Your task to perform on an android device: manage bookmarks in the chrome app Image 0: 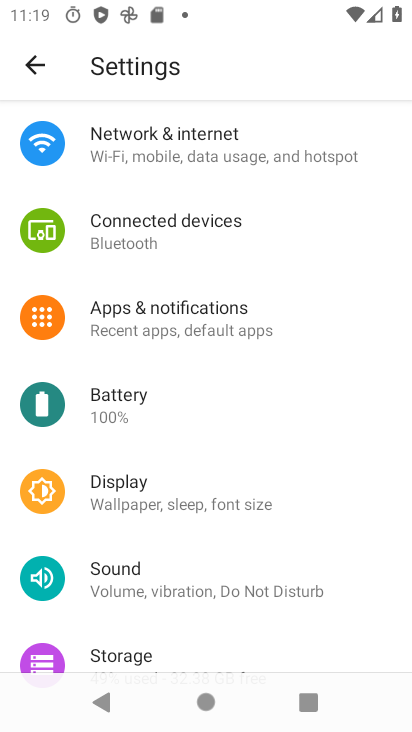
Step 0: drag from (296, 299) to (310, 193)
Your task to perform on an android device: manage bookmarks in the chrome app Image 1: 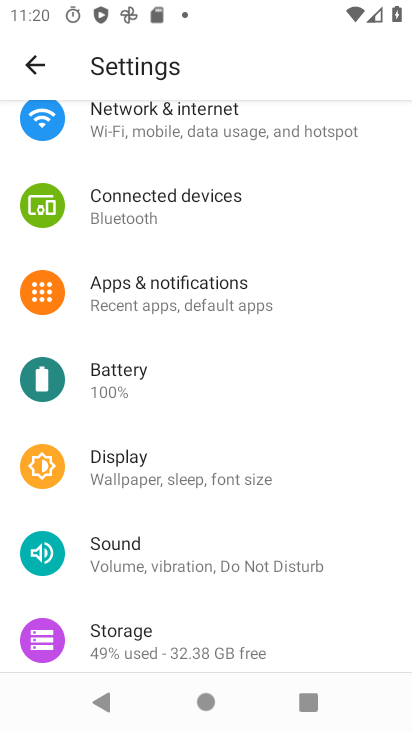
Step 1: press home button
Your task to perform on an android device: manage bookmarks in the chrome app Image 2: 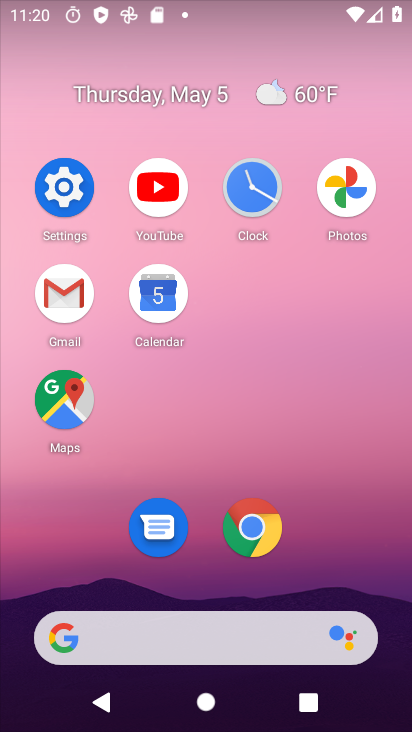
Step 2: click (243, 513)
Your task to perform on an android device: manage bookmarks in the chrome app Image 3: 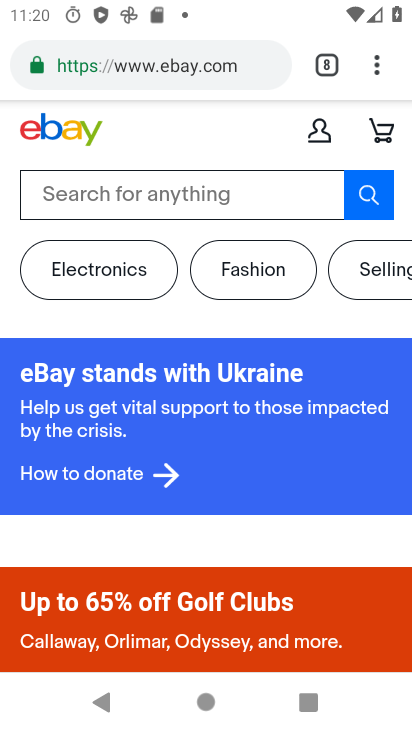
Step 3: click (378, 60)
Your task to perform on an android device: manage bookmarks in the chrome app Image 4: 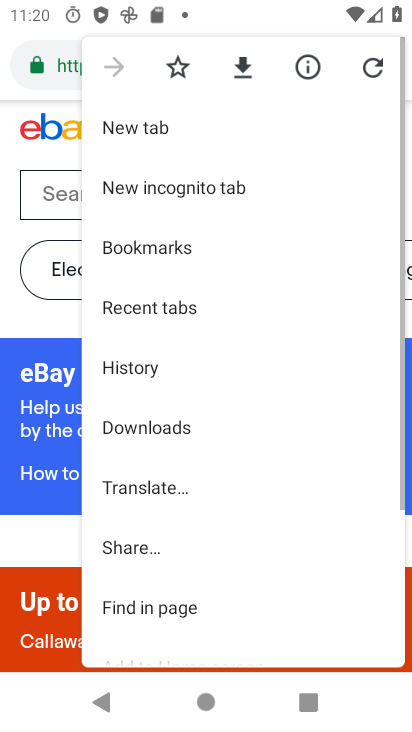
Step 4: click (219, 241)
Your task to perform on an android device: manage bookmarks in the chrome app Image 5: 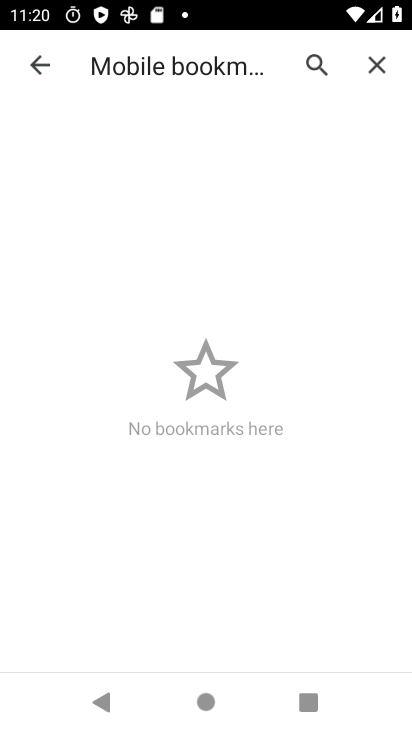
Step 5: task complete